Your task to perform on an android device: delete a single message in the gmail app Image 0: 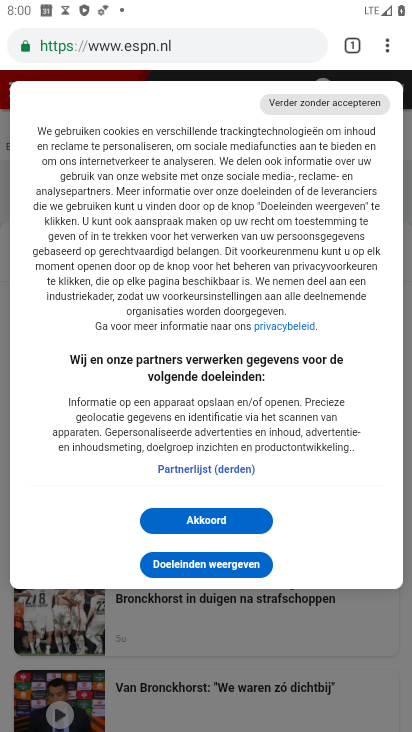
Step 0: press home button
Your task to perform on an android device: delete a single message in the gmail app Image 1: 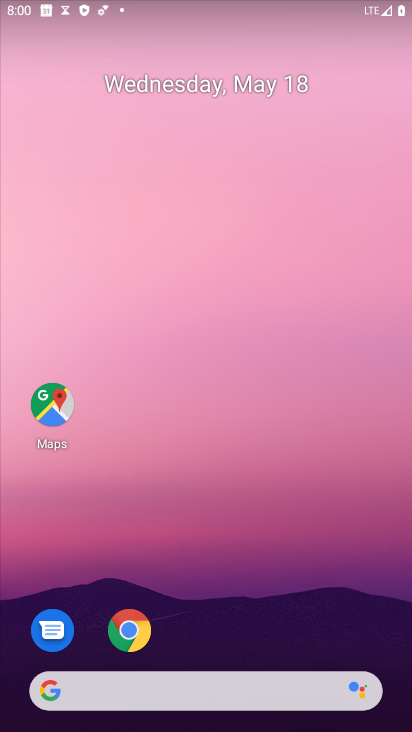
Step 1: drag from (331, 564) to (306, 103)
Your task to perform on an android device: delete a single message in the gmail app Image 2: 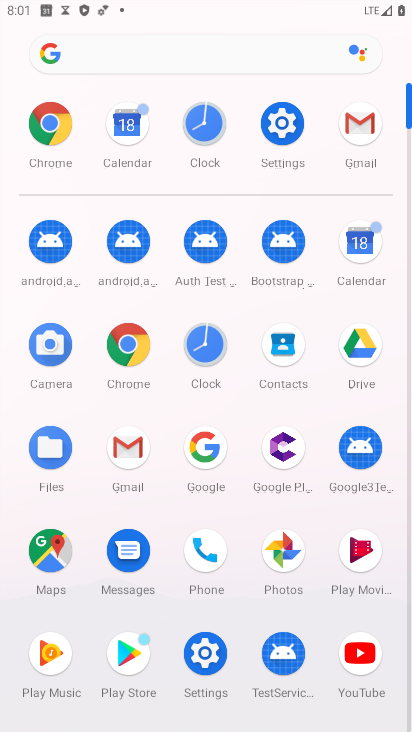
Step 2: click (343, 125)
Your task to perform on an android device: delete a single message in the gmail app Image 3: 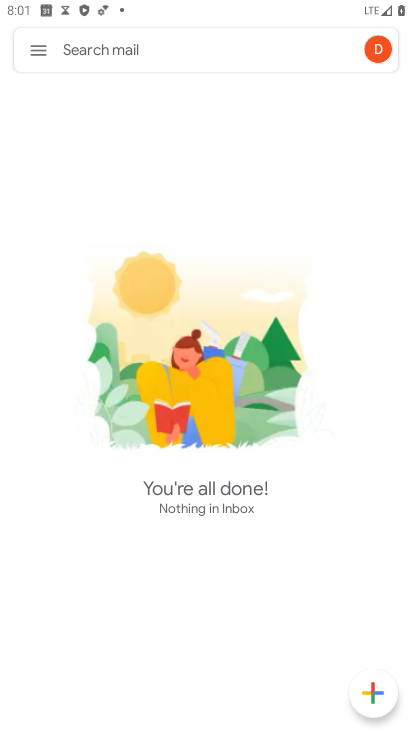
Step 3: task complete